Your task to perform on an android device: Go to display settings Image 0: 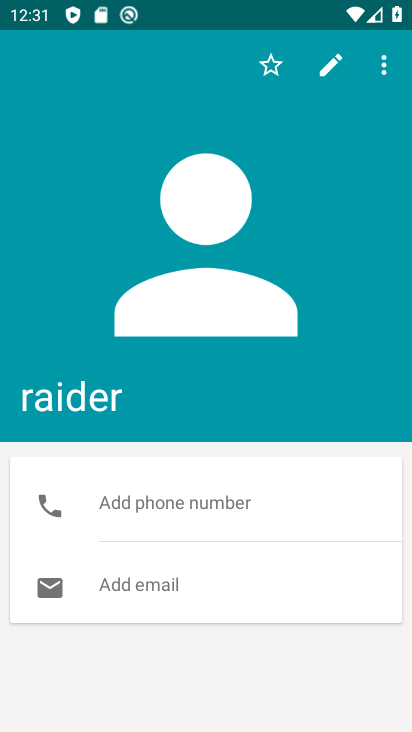
Step 0: press home button
Your task to perform on an android device: Go to display settings Image 1: 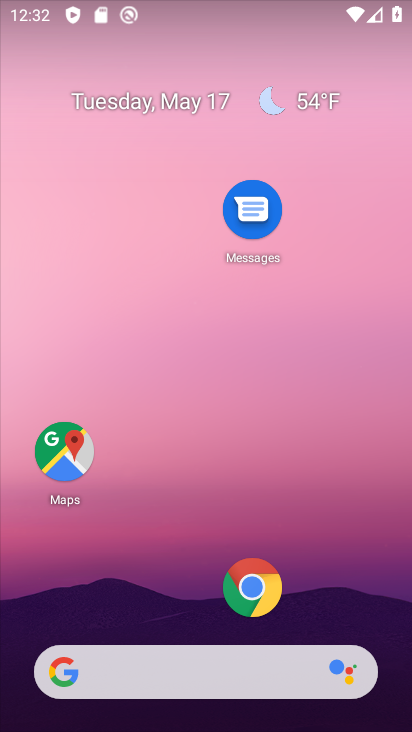
Step 1: drag from (188, 603) to (226, 59)
Your task to perform on an android device: Go to display settings Image 2: 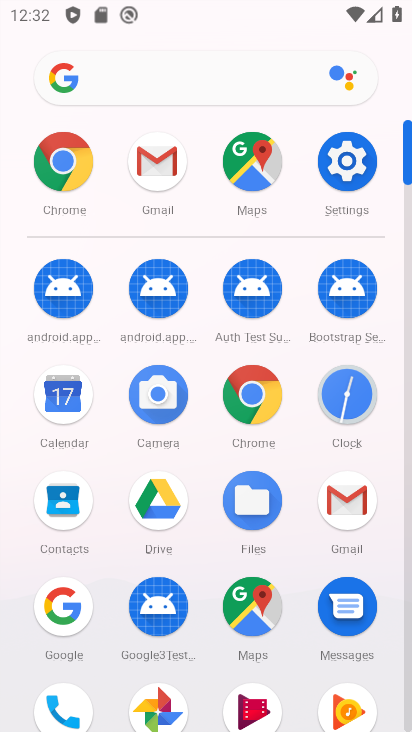
Step 2: click (351, 178)
Your task to perform on an android device: Go to display settings Image 3: 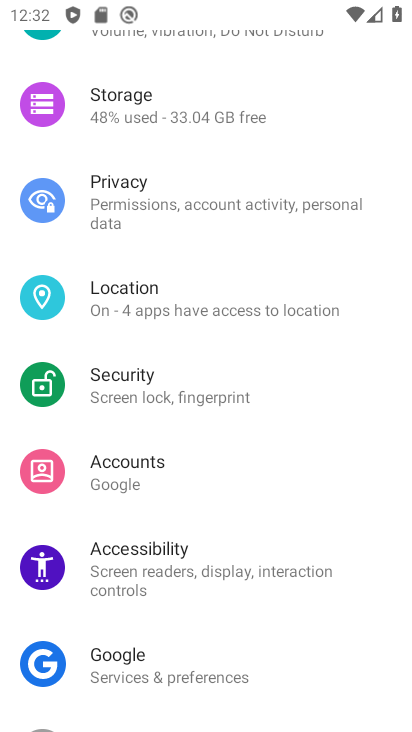
Step 3: drag from (180, 253) to (179, 674)
Your task to perform on an android device: Go to display settings Image 4: 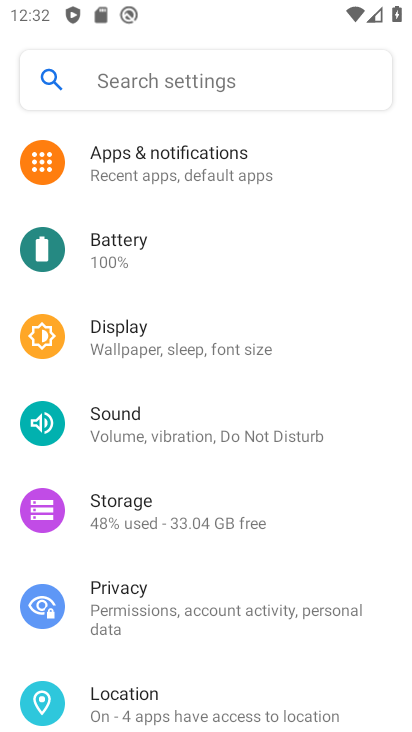
Step 4: click (163, 347)
Your task to perform on an android device: Go to display settings Image 5: 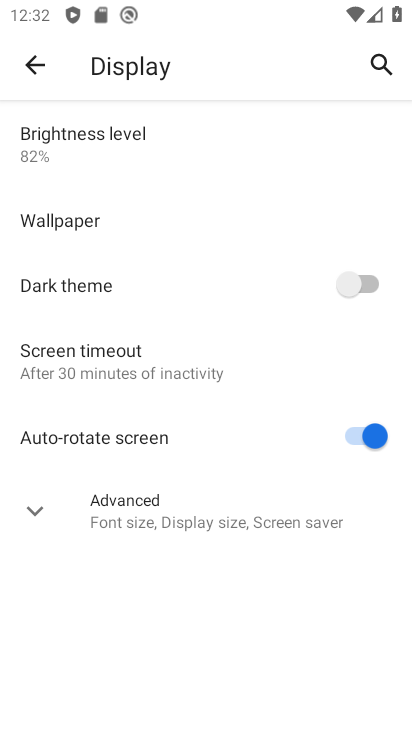
Step 5: task complete